Your task to perform on an android device: toggle data saver in the chrome app Image 0: 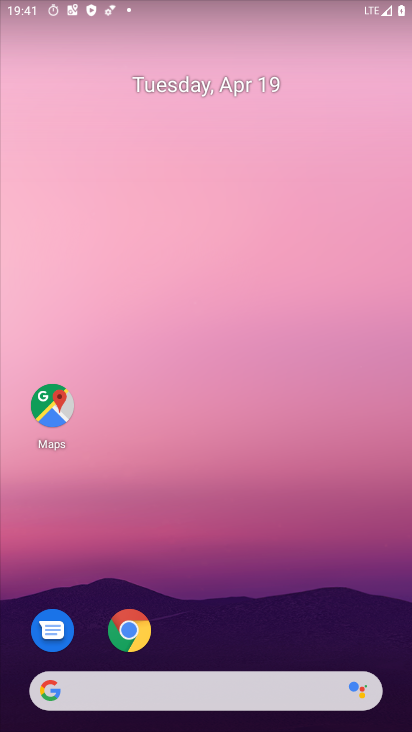
Step 0: click (136, 622)
Your task to perform on an android device: toggle data saver in the chrome app Image 1: 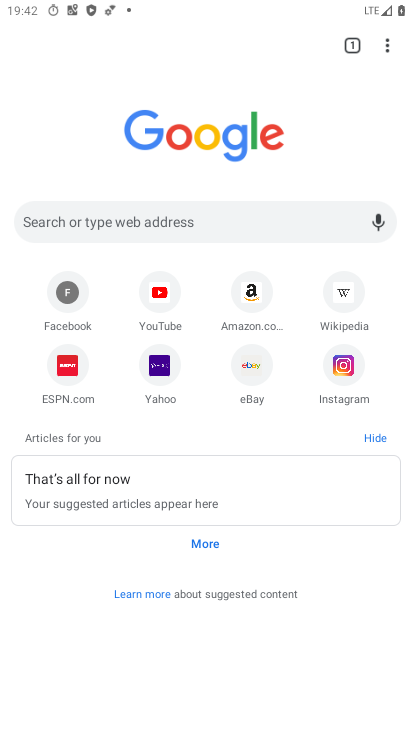
Step 1: click (385, 43)
Your task to perform on an android device: toggle data saver in the chrome app Image 2: 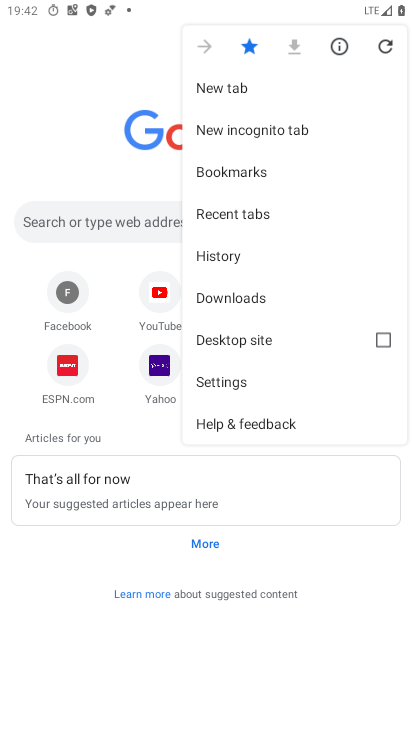
Step 2: click (242, 373)
Your task to perform on an android device: toggle data saver in the chrome app Image 3: 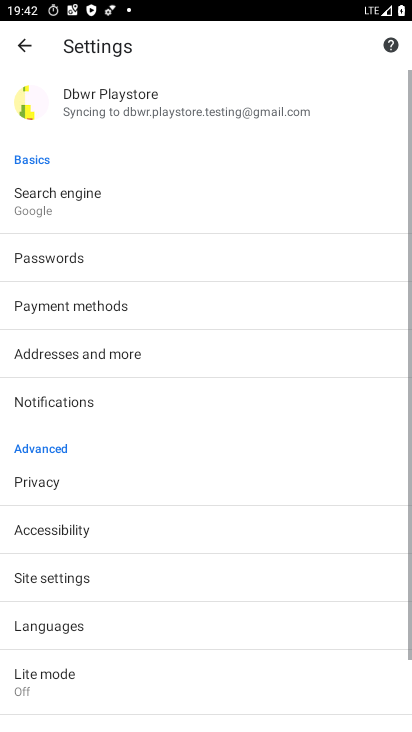
Step 3: drag from (221, 397) to (184, 34)
Your task to perform on an android device: toggle data saver in the chrome app Image 4: 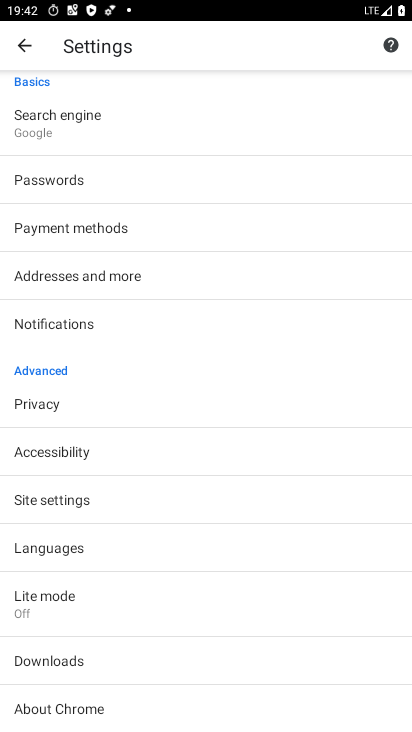
Step 4: click (62, 605)
Your task to perform on an android device: toggle data saver in the chrome app Image 5: 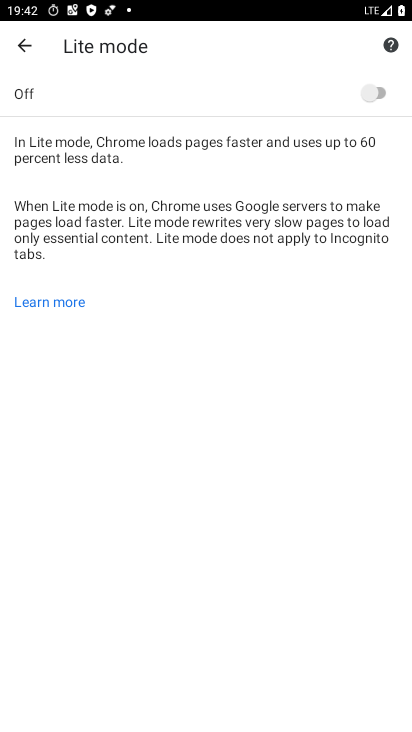
Step 5: click (373, 100)
Your task to perform on an android device: toggle data saver in the chrome app Image 6: 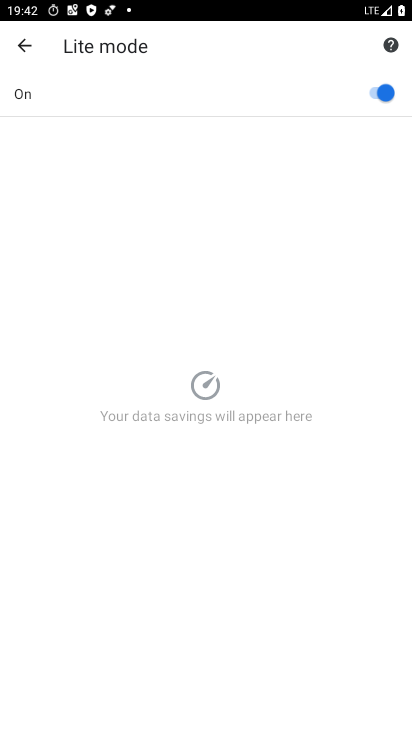
Step 6: task complete